Your task to perform on an android device: Search for Mexican restaurants on Maps Image 0: 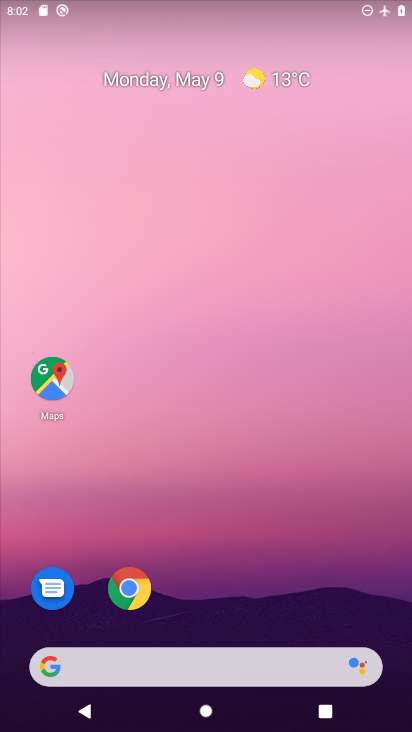
Step 0: click (47, 377)
Your task to perform on an android device: Search for Mexican restaurants on Maps Image 1: 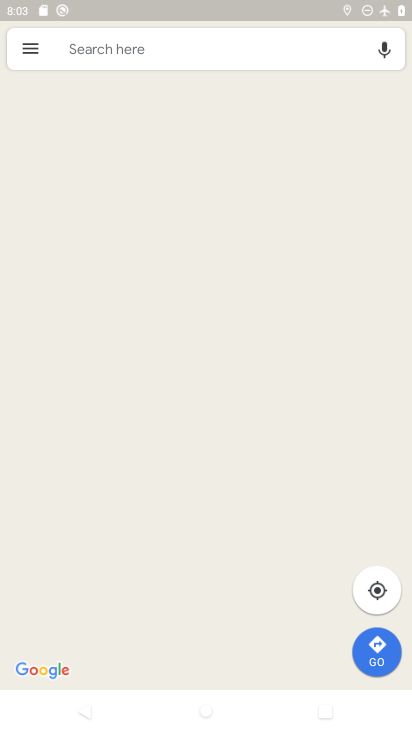
Step 1: task complete